Your task to perform on an android device: Go to battery settings Image 0: 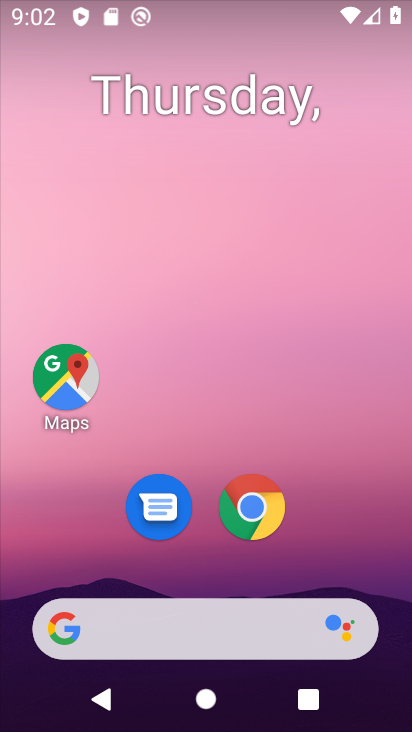
Step 0: drag from (207, 574) to (225, 2)
Your task to perform on an android device: Go to battery settings Image 1: 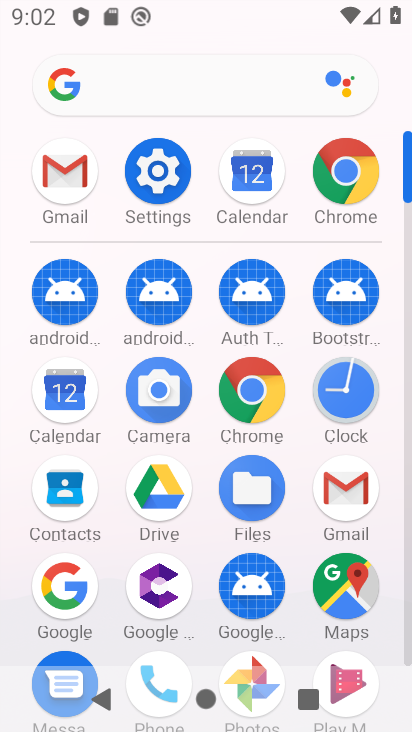
Step 1: click (145, 182)
Your task to perform on an android device: Go to battery settings Image 2: 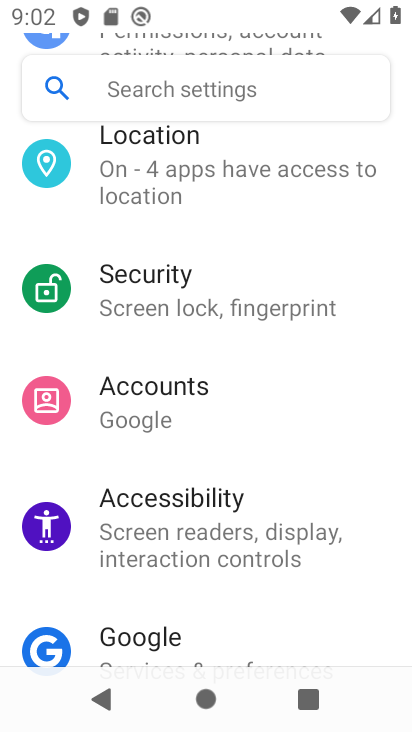
Step 2: drag from (188, 194) to (196, 490)
Your task to perform on an android device: Go to battery settings Image 3: 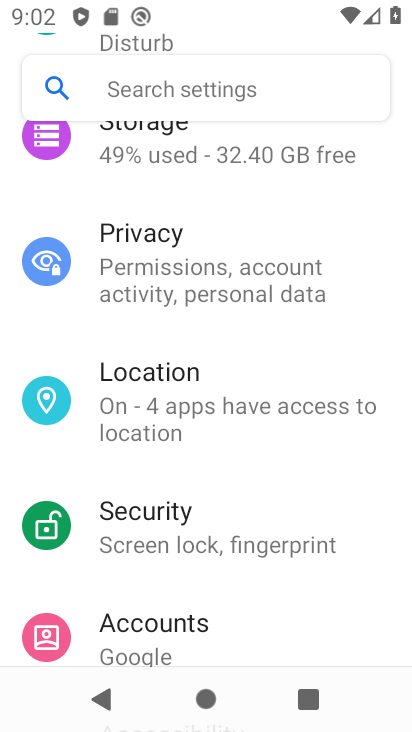
Step 3: drag from (177, 253) to (178, 632)
Your task to perform on an android device: Go to battery settings Image 4: 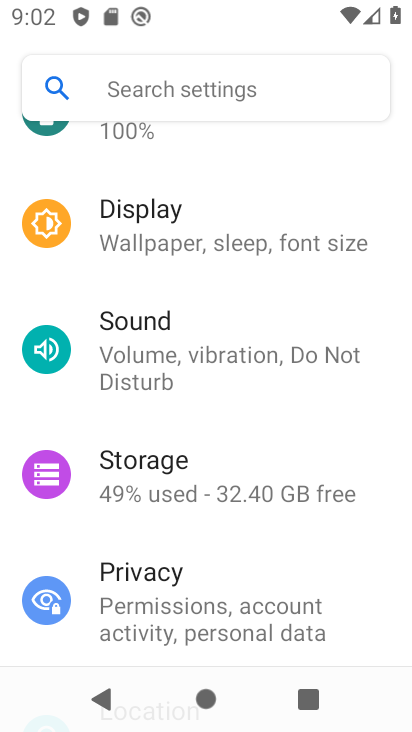
Step 4: drag from (200, 280) to (143, 717)
Your task to perform on an android device: Go to battery settings Image 5: 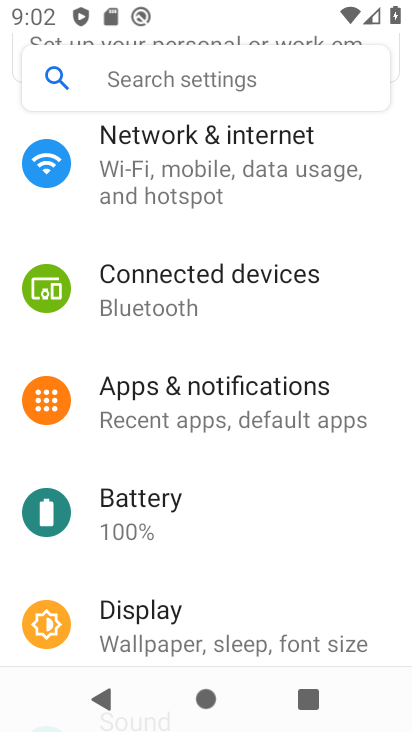
Step 5: click (138, 558)
Your task to perform on an android device: Go to battery settings Image 6: 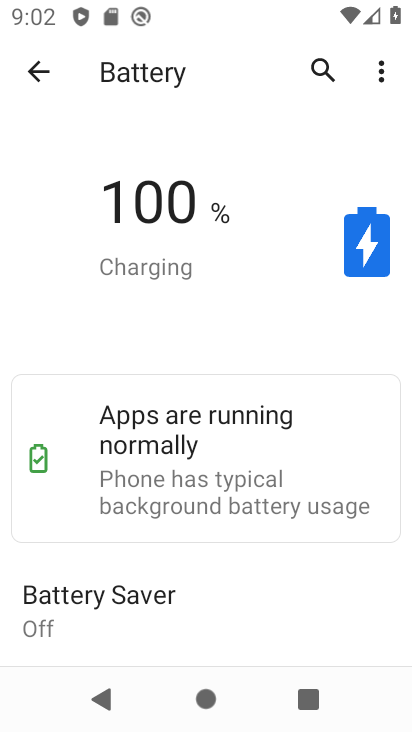
Step 6: task complete